Your task to perform on an android device: Google the capital of Chile Image 0: 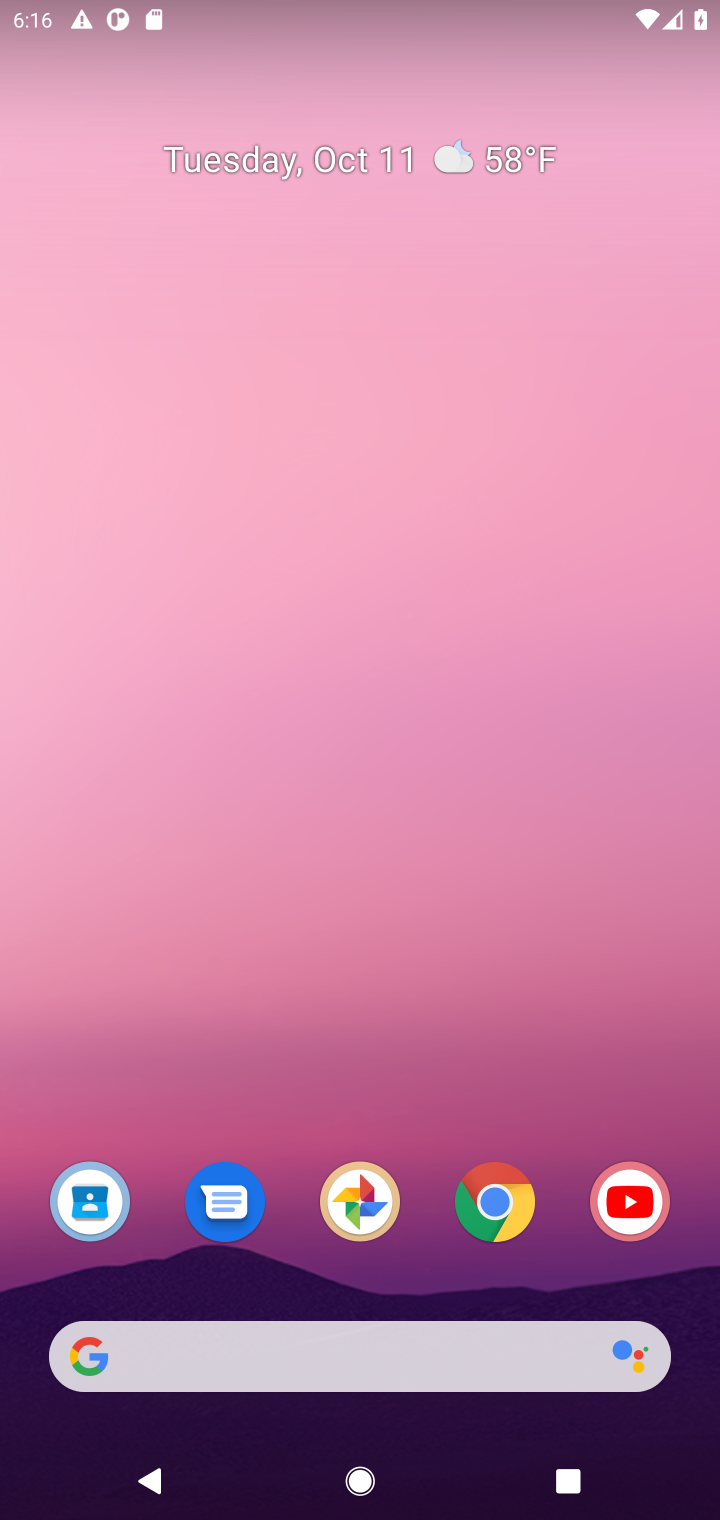
Step 0: click (481, 1204)
Your task to perform on an android device: Google the capital of Chile Image 1: 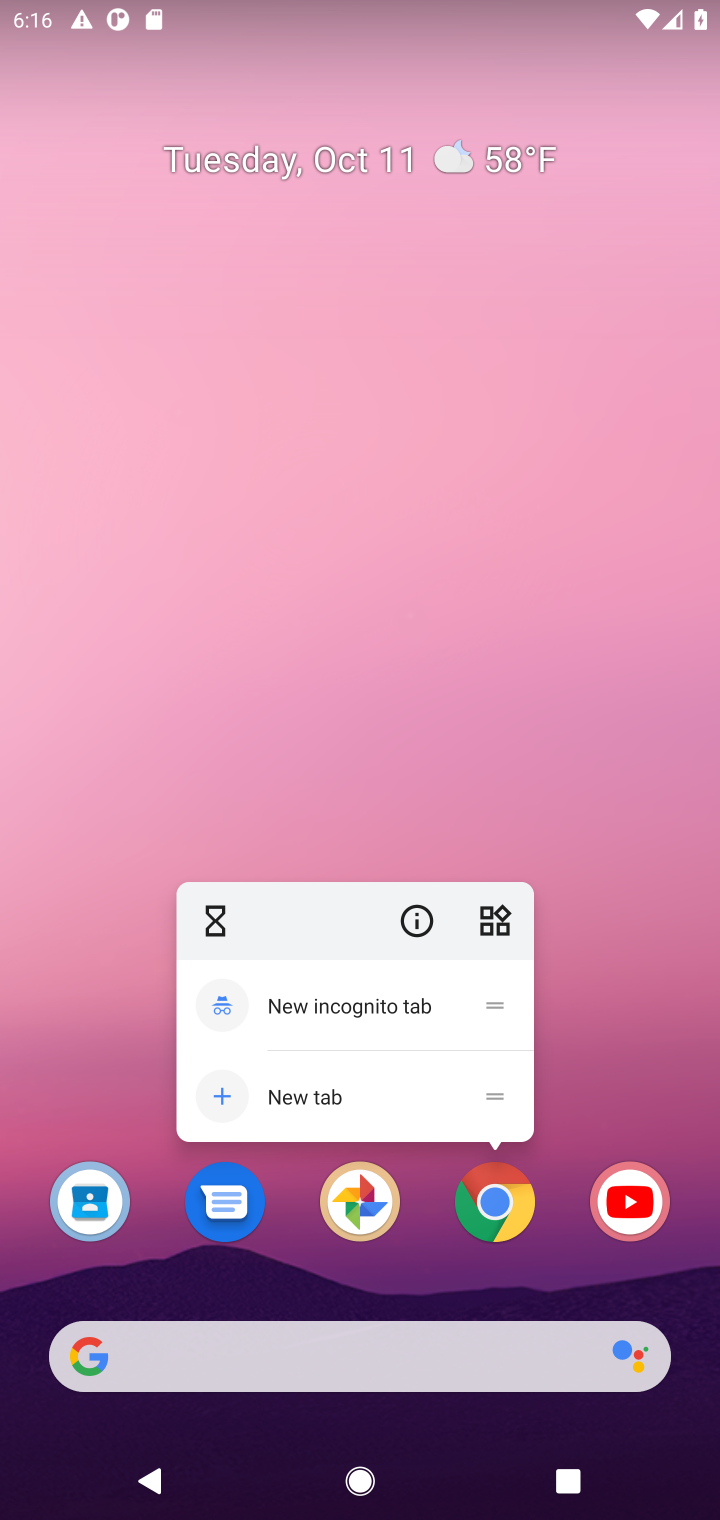
Step 1: click (497, 1217)
Your task to perform on an android device: Google the capital of Chile Image 2: 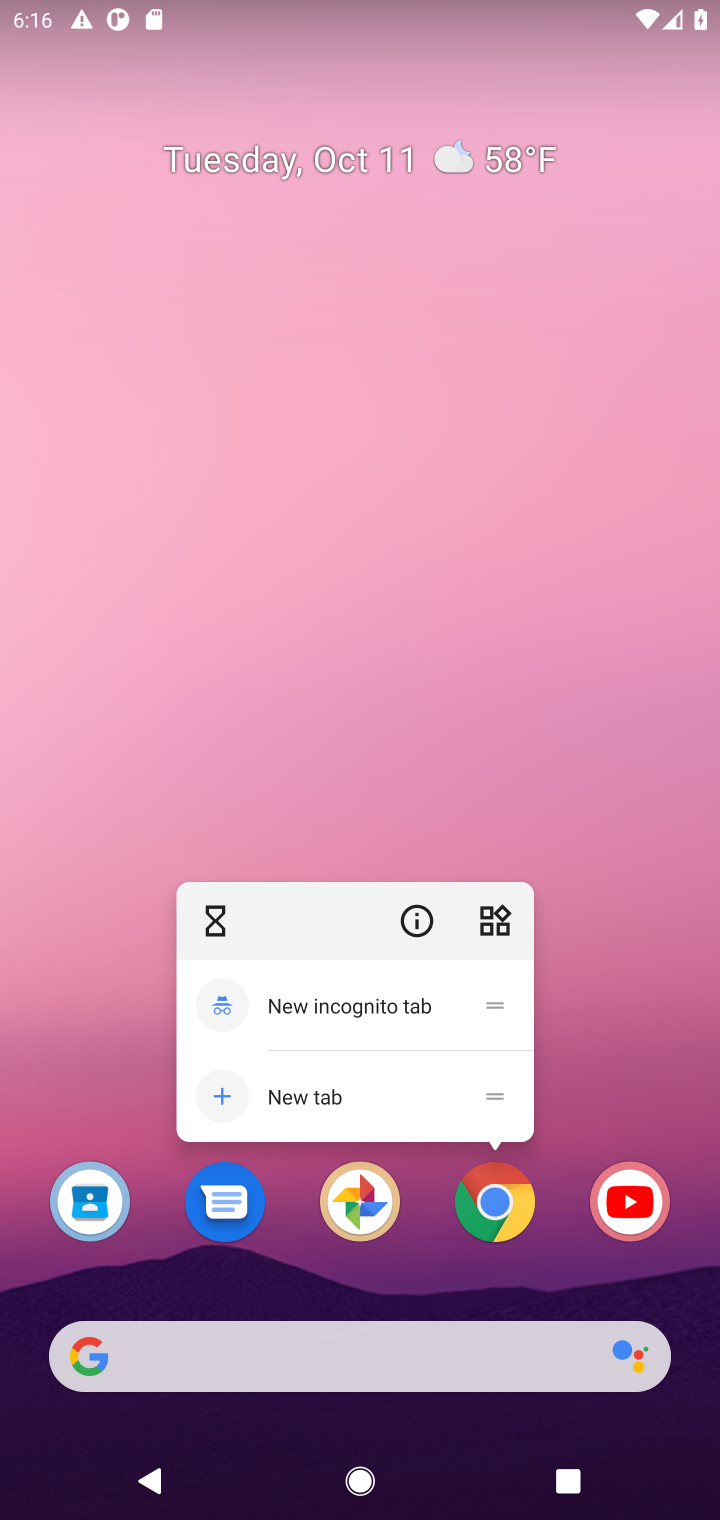
Step 2: click (496, 1219)
Your task to perform on an android device: Google the capital of Chile Image 3: 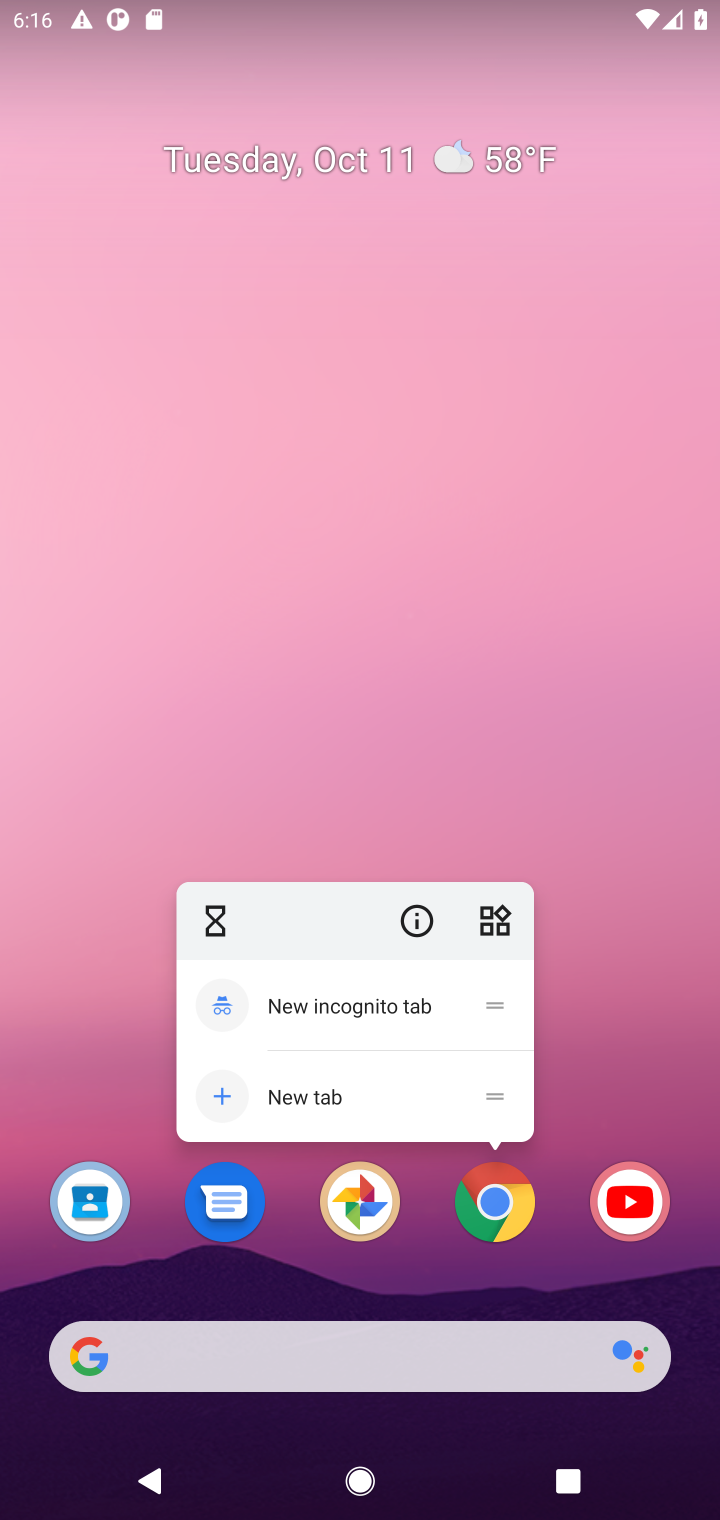
Step 3: click (496, 1219)
Your task to perform on an android device: Google the capital of Chile Image 4: 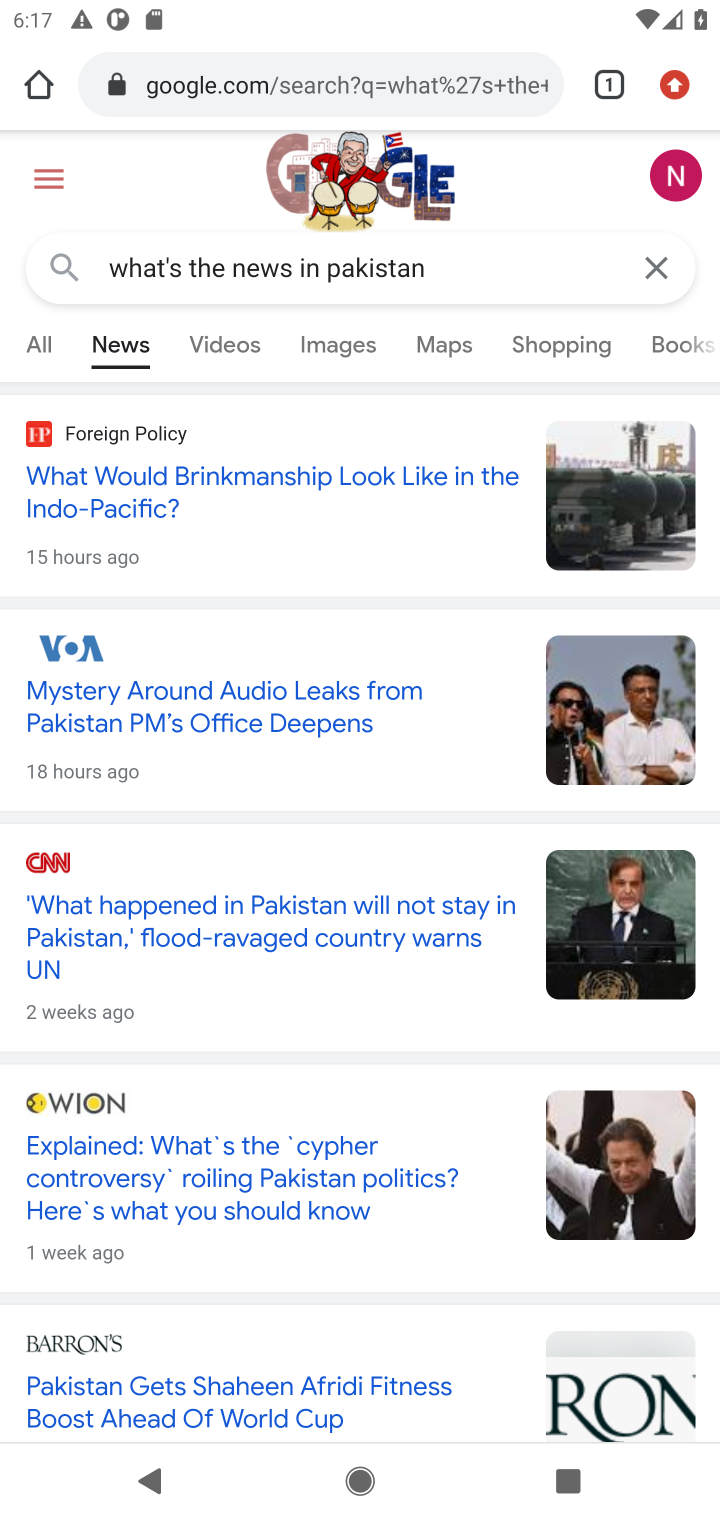
Step 4: click (339, 77)
Your task to perform on an android device: Google the capital of Chile Image 5: 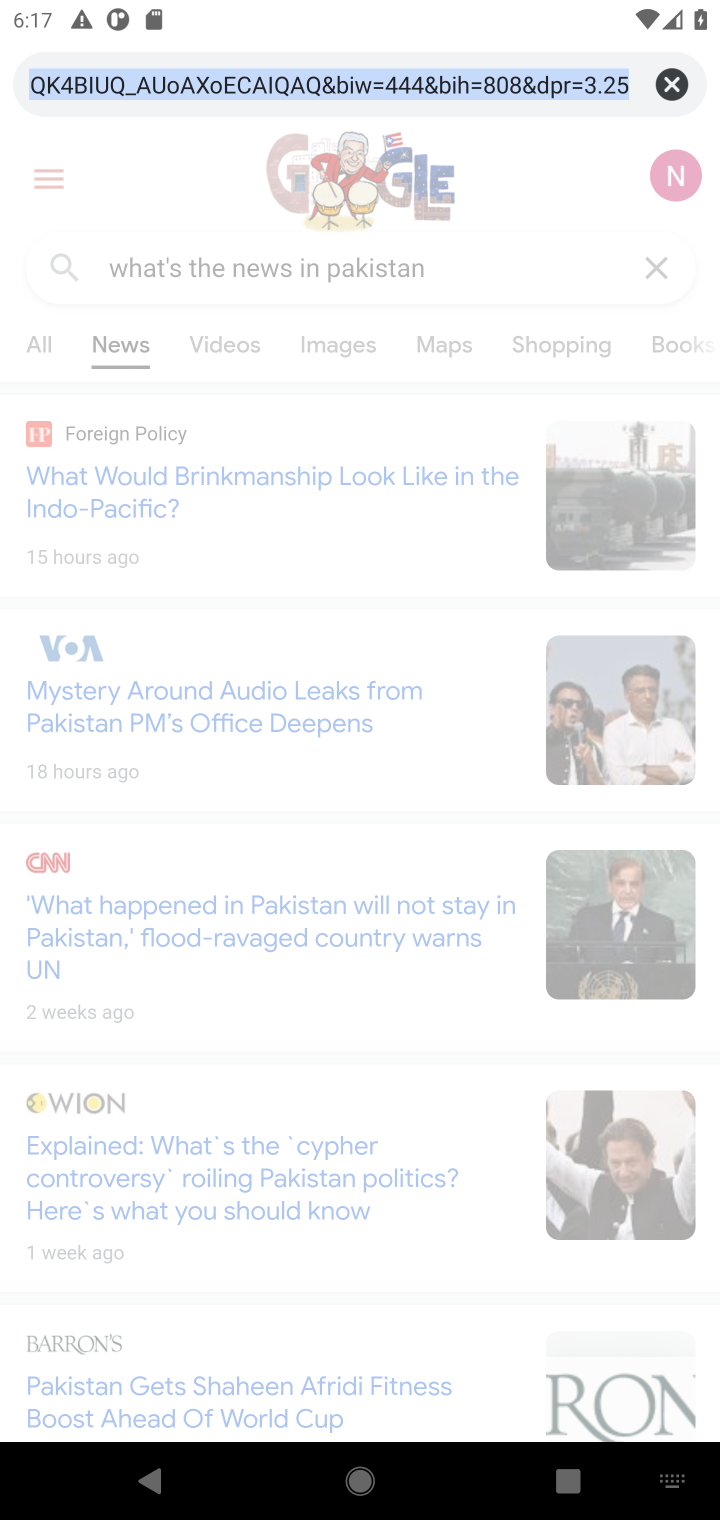
Step 5: type "Google the capital of Chile"
Your task to perform on an android device: Google the capital of Chile Image 6: 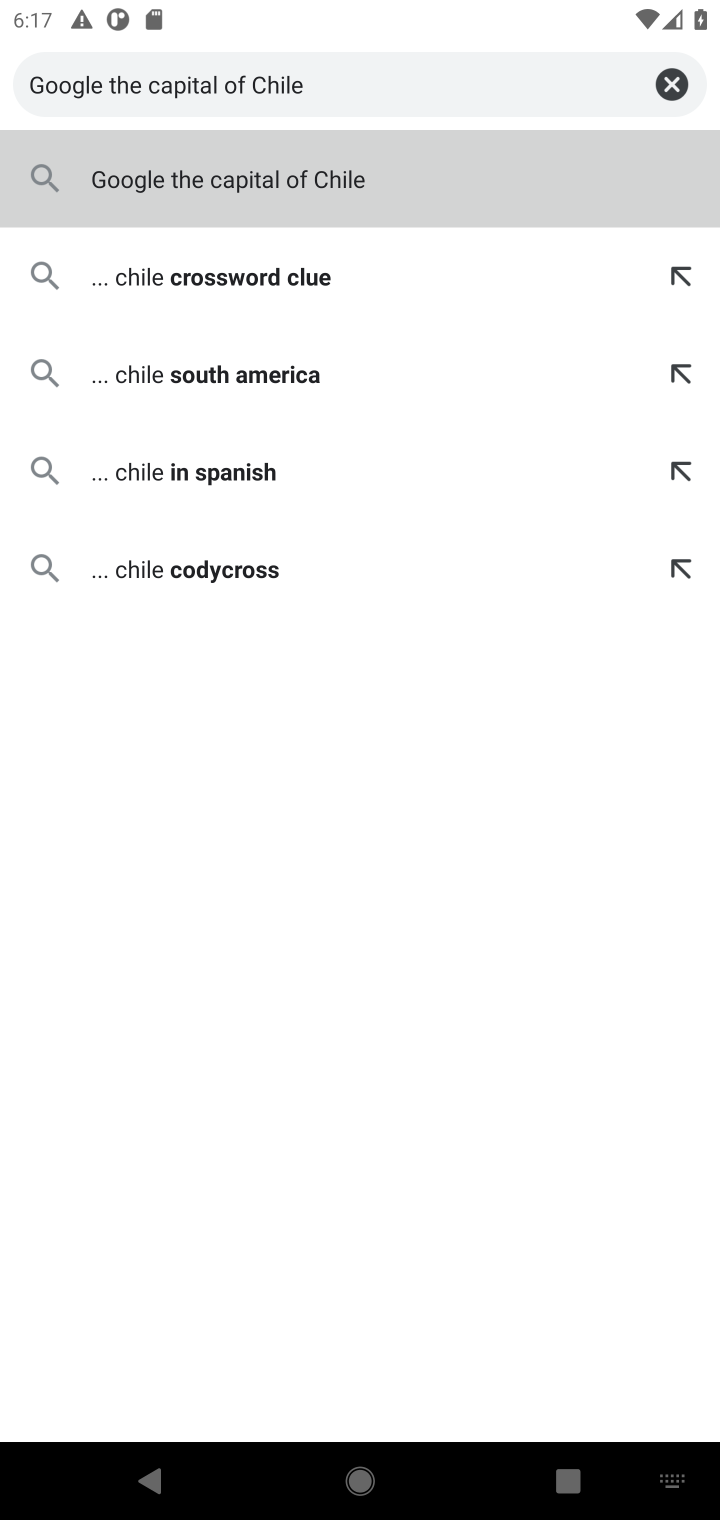
Step 6: click (351, 157)
Your task to perform on an android device: Google the capital of Chile Image 7: 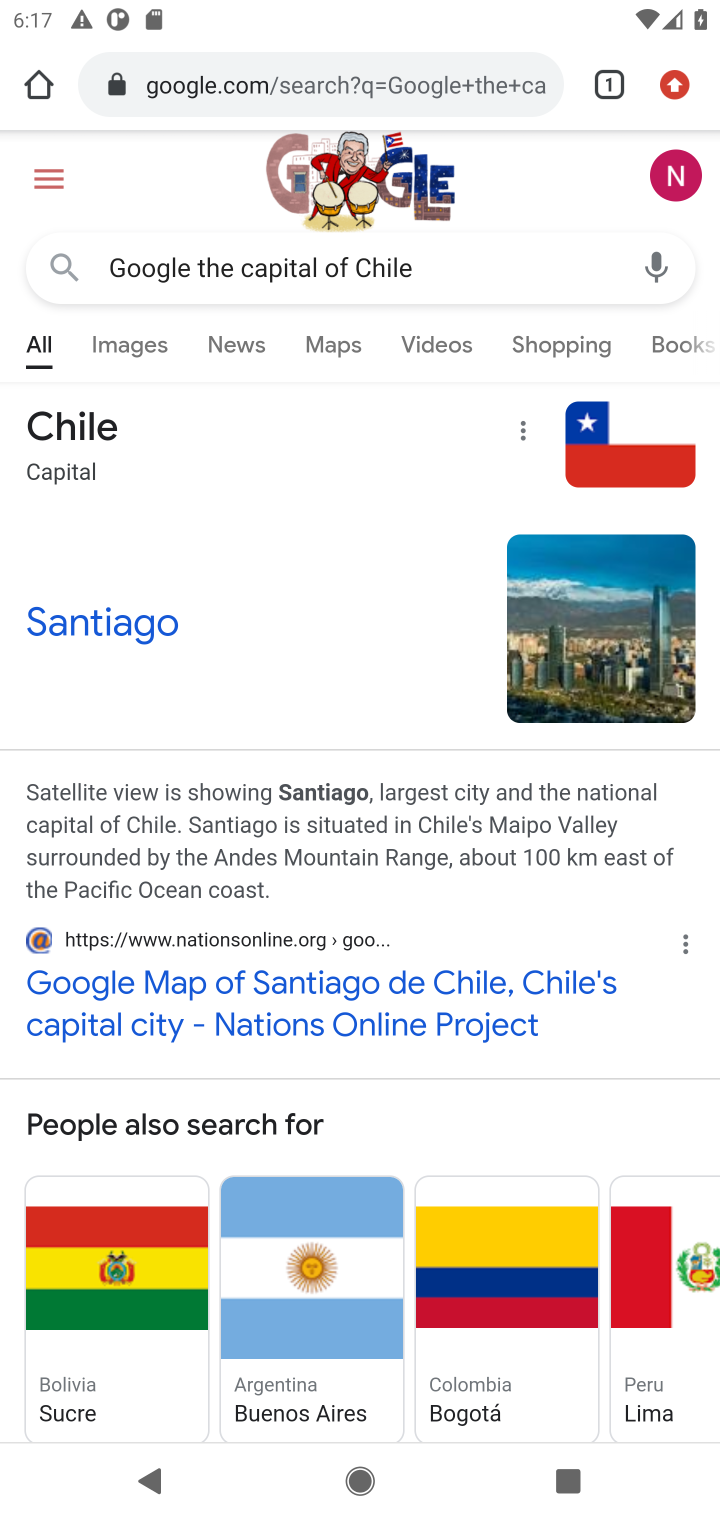
Step 7: task complete